Your task to perform on an android device: change the clock display to show seconds Image 0: 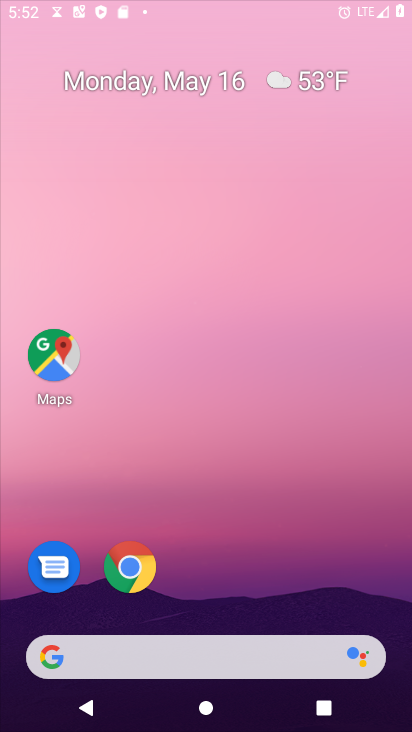
Step 0: drag from (344, 591) to (270, 10)
Your task to perform on an android device: change the clock display to show seconds Image 1: 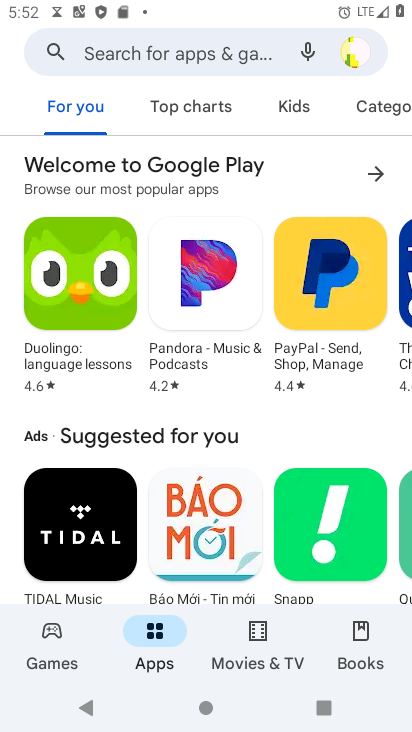
Step 1: press home button
Your task to perform on an android device: change the clock display to show seconds Image 2: 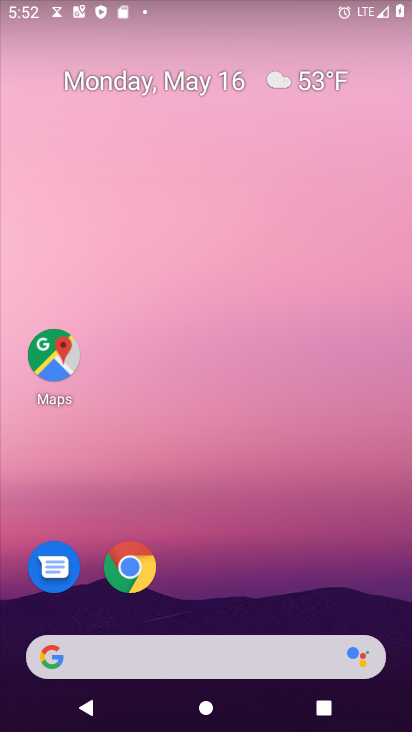
Step 2: drag from (191, 643) to (176, 97)
Your task to perform on an android device: change the clock display to show seconds Image 3: 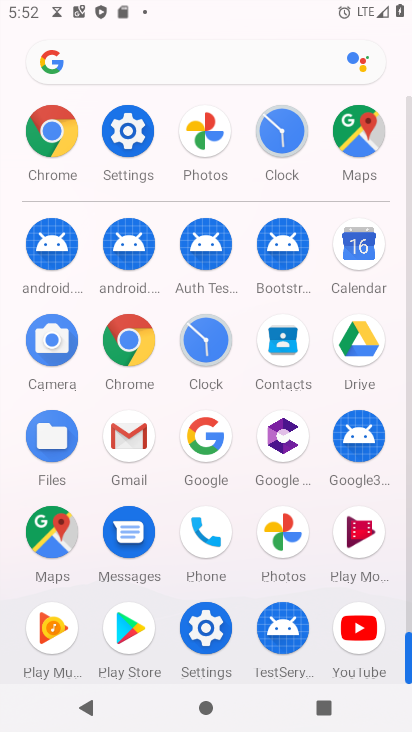
Step 3: click (212, 351)
Your task to perform on an android device: change the clock display to show seconds Image 4: 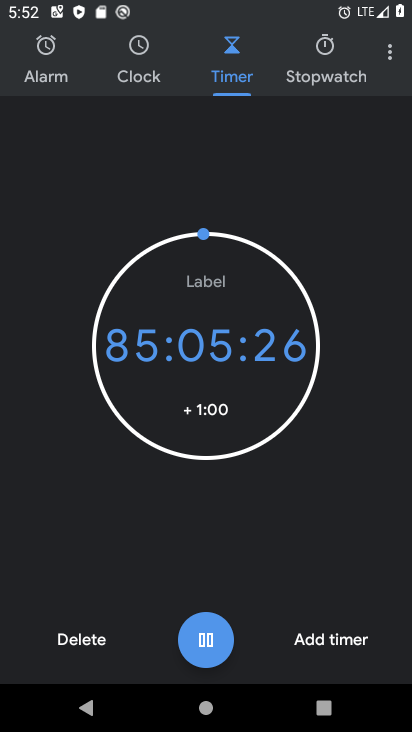
Step 4: click (389, 45)
Your task to perform on an android device: change the clock display to show seconds Image 5: 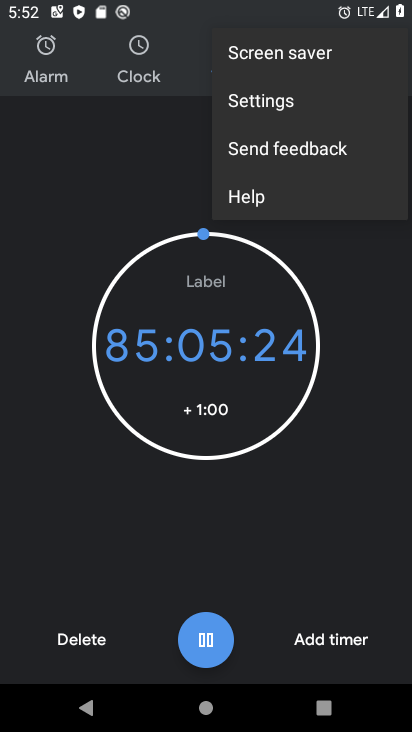
Step 5: click (298, 102)
Your task to perform on an android device: change the clock display to show seconds Image 6: 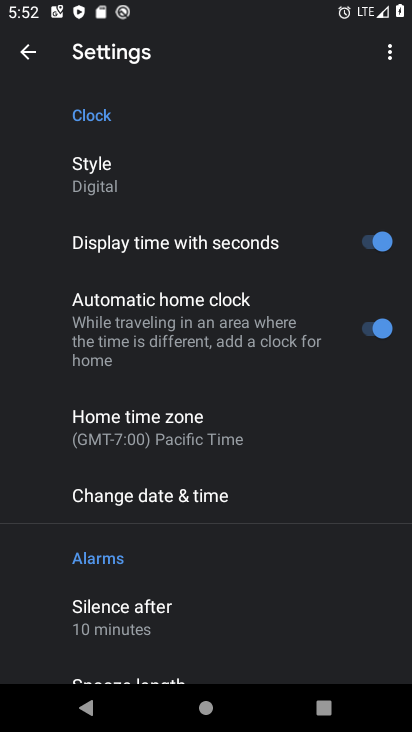
Step 6: task complete